Your task to perform on an android device: change the clock style Image 0: 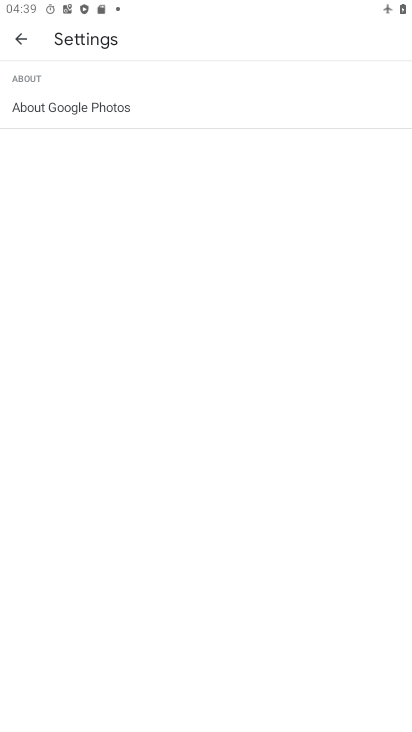
Step 0: click (23, 43)
Your task to perform on an android device: change the clock style Image 1: 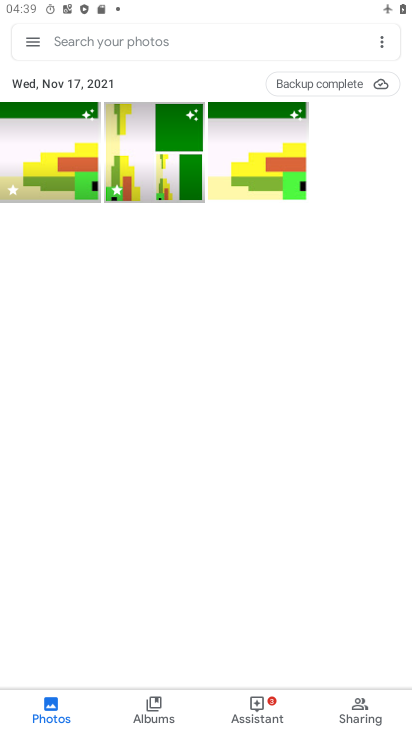
Step 1: press home button
Your task to perform on an android device: change the clock style Image 2: 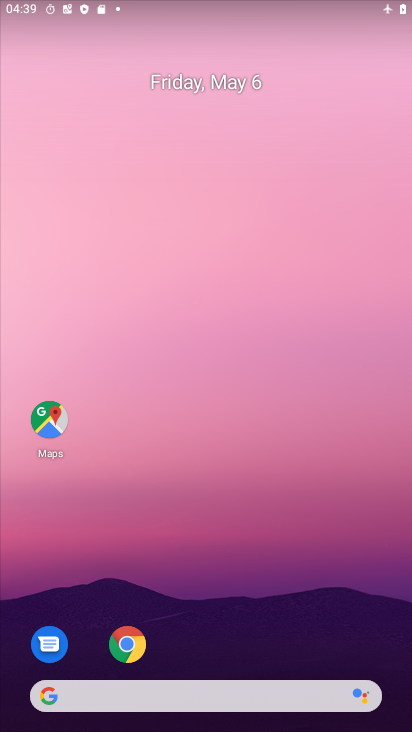
Step 2: drag from (310, 560) to (190, 10)
Your task to perform on an android device: change the clock style Image 3: 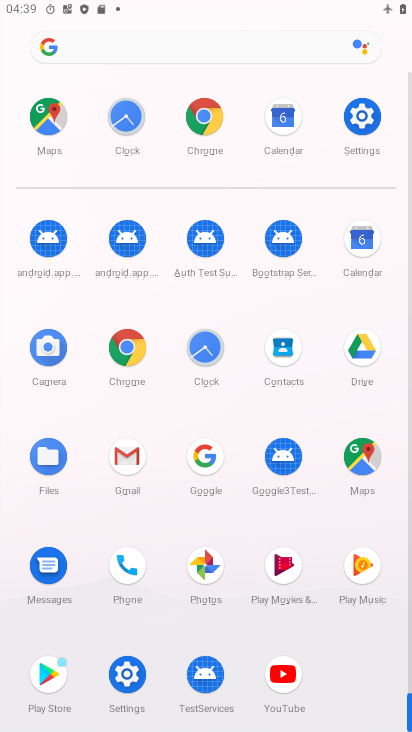
Step 3: click (199, 345)
Your task to perform on an android device: change the clock style Image 4: 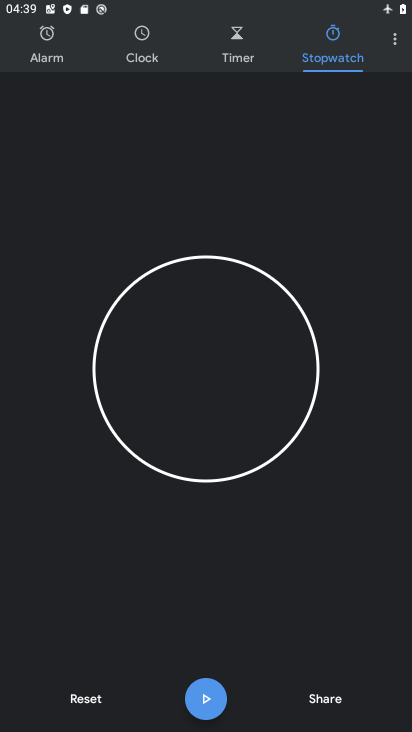
Step 4: click (395, 38)
Your task to perform on an android device: change the clock style Image 5: 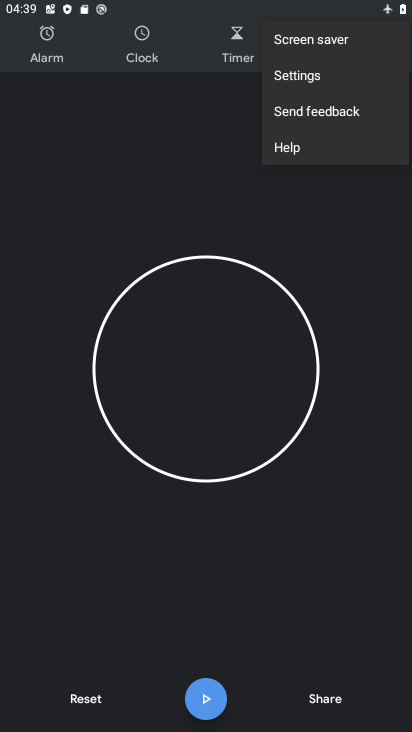
Step 5: click (306, 69)
Your task to perform on an android device: change the clock style Image 6: 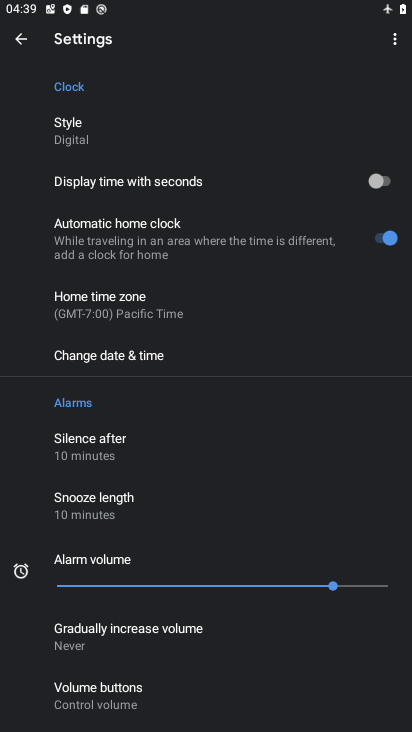
Step 6: click (98, 139)
Your task to perform on an android device: change the clock style Image 7: 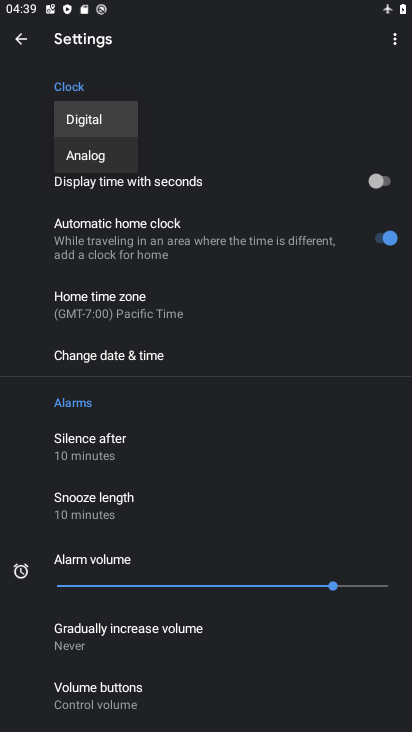
Step 7: click (83, 150)
Your task to perform on an android device: change the clock style Image 8: 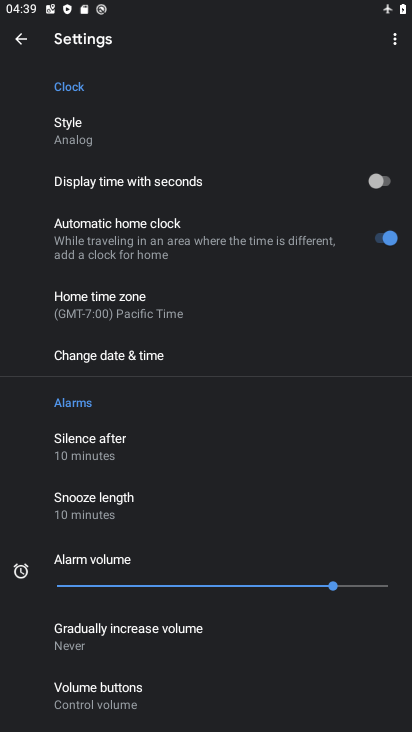
Step 8: task complete